Your task to perform on an android device: turn on notifications settings in the gmail app Image 0: 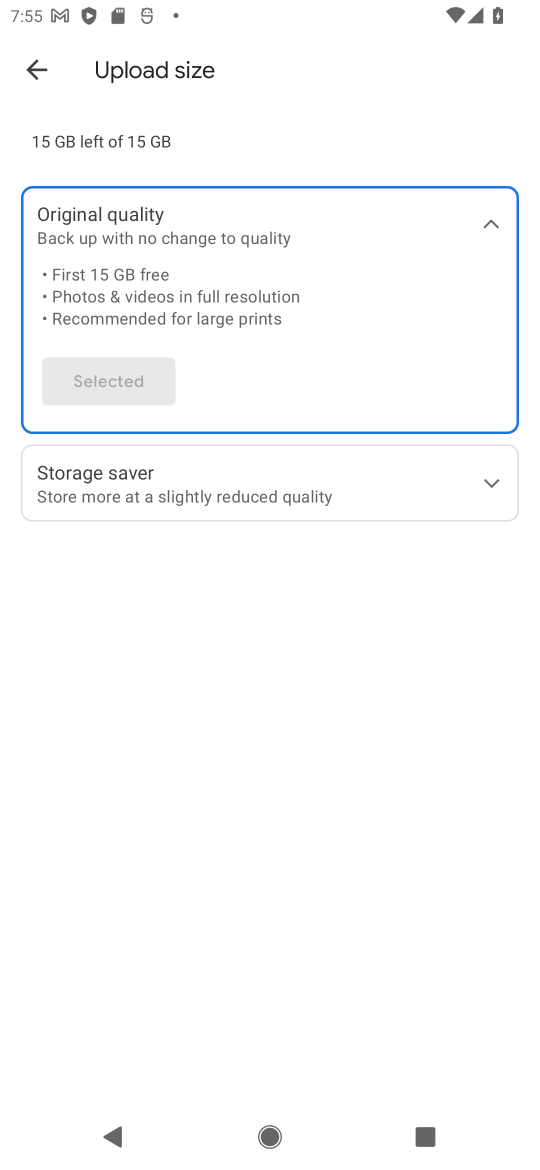
Step 0: press home button
Your task to perform on an android device: turn on notifications settings in the gmail app Image 1: 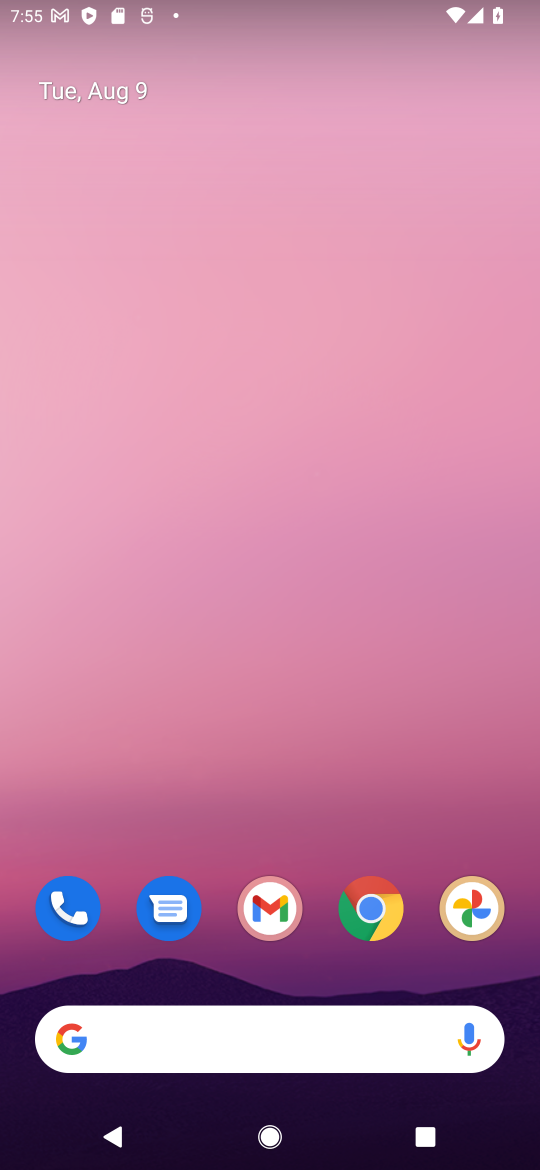
Step 1: drag from (332, 988) to (326, 150)
Your task to perform on an android device: turn on notifications settings in the gmail app Image 2: 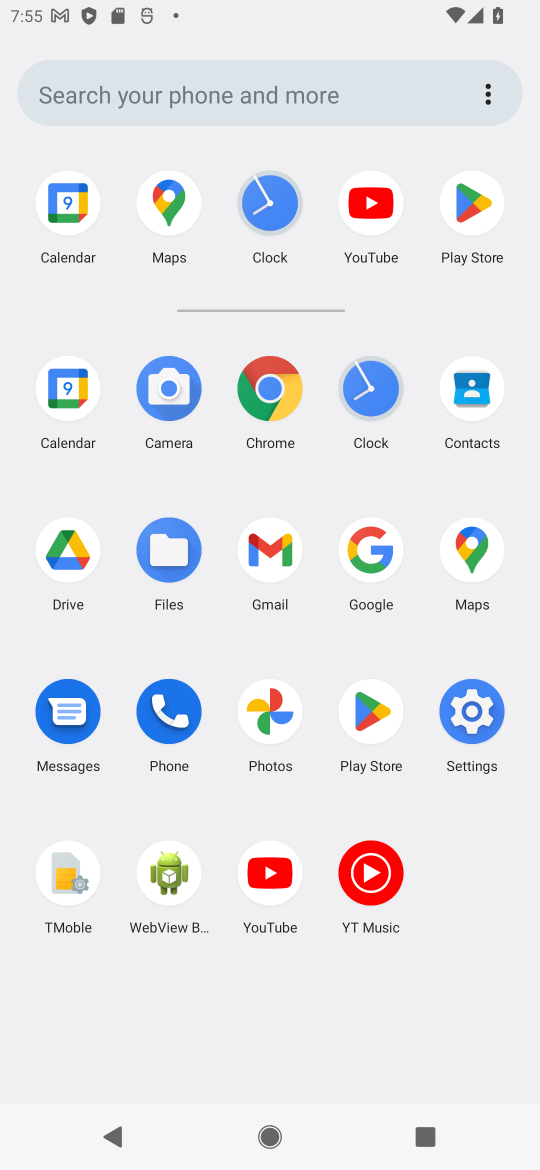
Step 2: click (269, 553)
Your task to perform on an android device: turn on notifications settings in the gmail app Image 3: 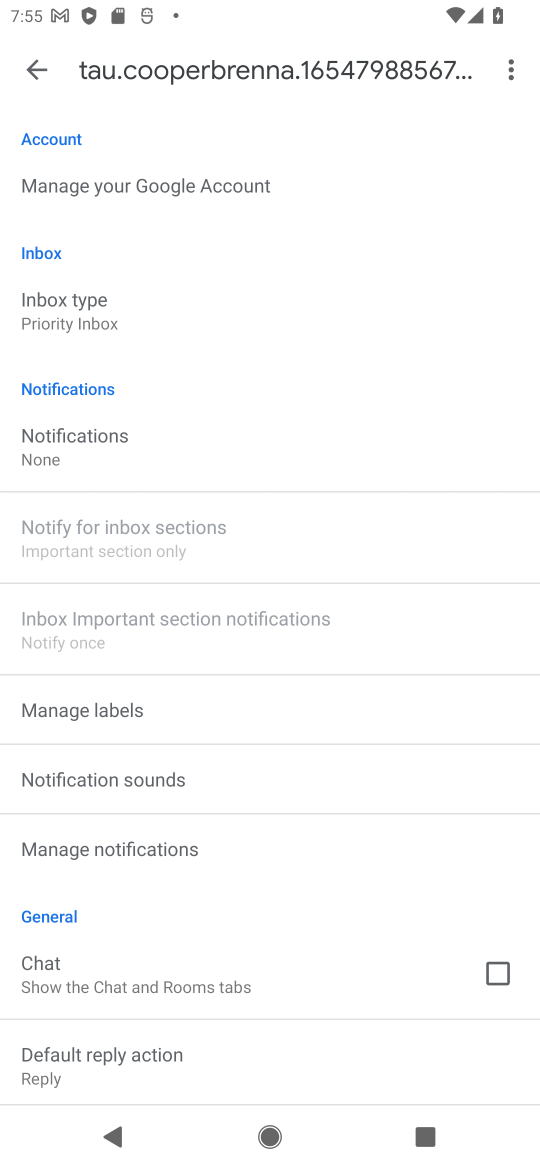
Step 3: click (98, 437)
Your task to perform on an android device: turn on notifications settings in the gmail app Image 4: 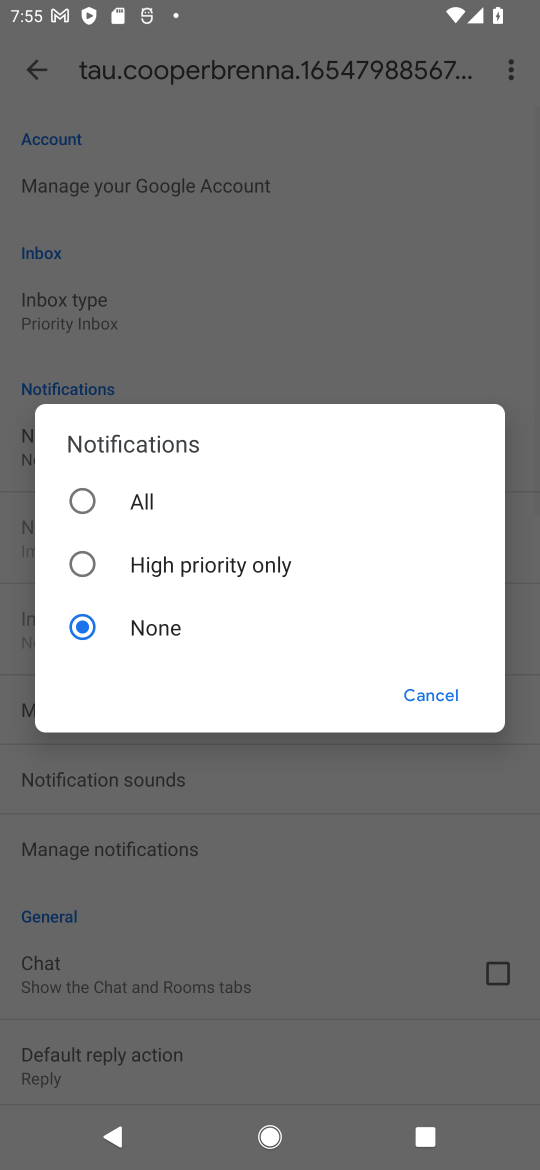
Step 4: click (74, 505)
Your task to perform on an android device: turn on notifications settings in the gmail app Image 5: 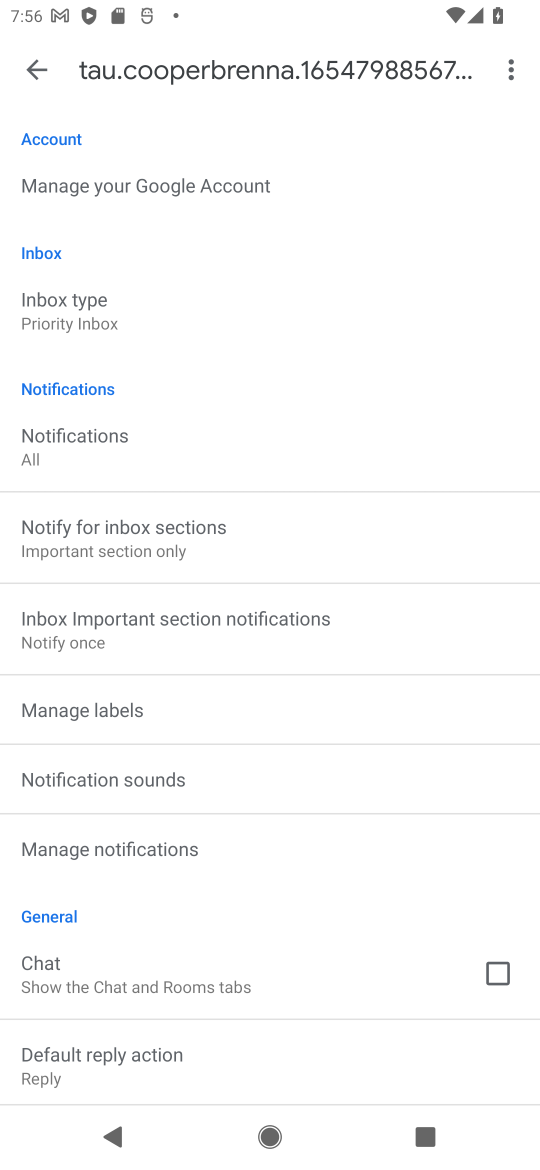
Step 5: task complete